Your task to perform on an android device: Clear the cart on costco.com. Search for asus zenbook on costco.com, select the first entry, add it to the cart, then select checkout. Image 0: 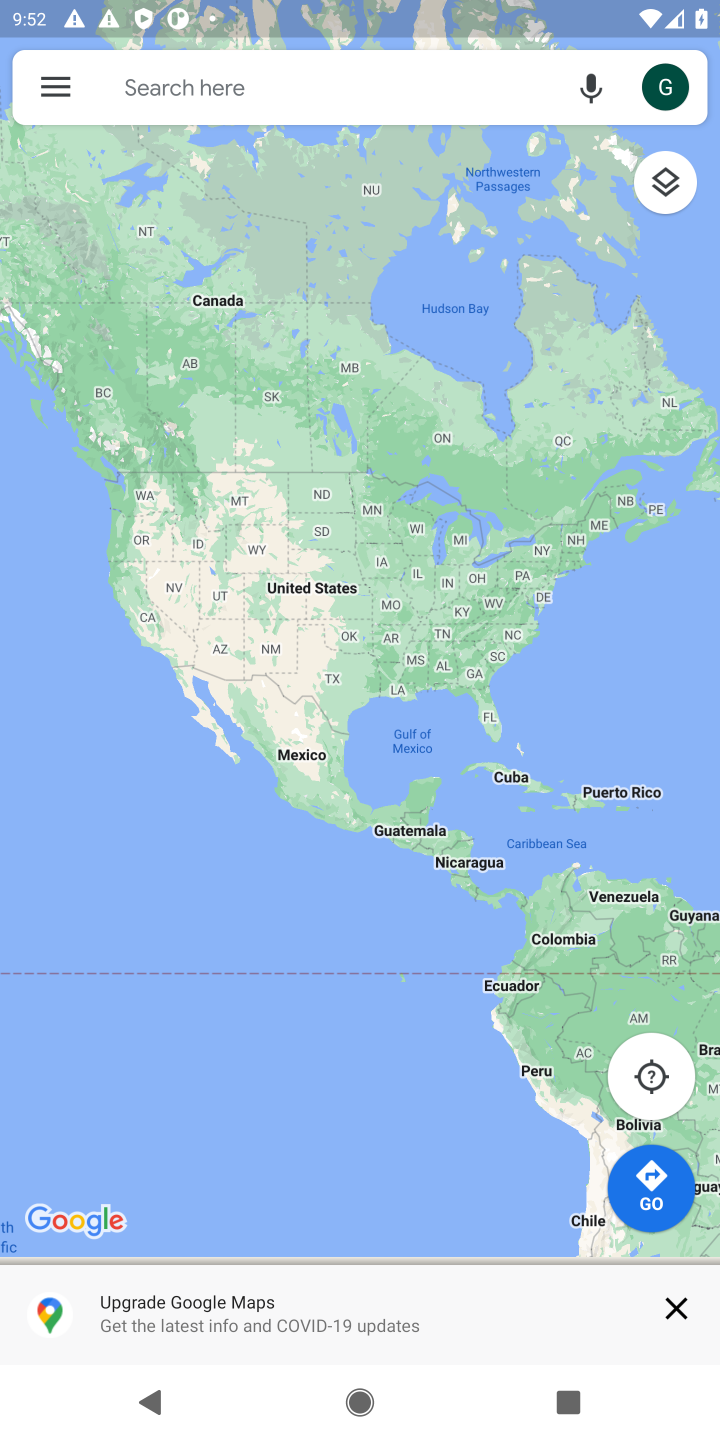
Step 0: press home button
Your task to perform on an android device: Clear the cart on costco.com. Search for asus zenbook on costco.com, select the first entry, add it to the cart, then select checkout. Image 1: 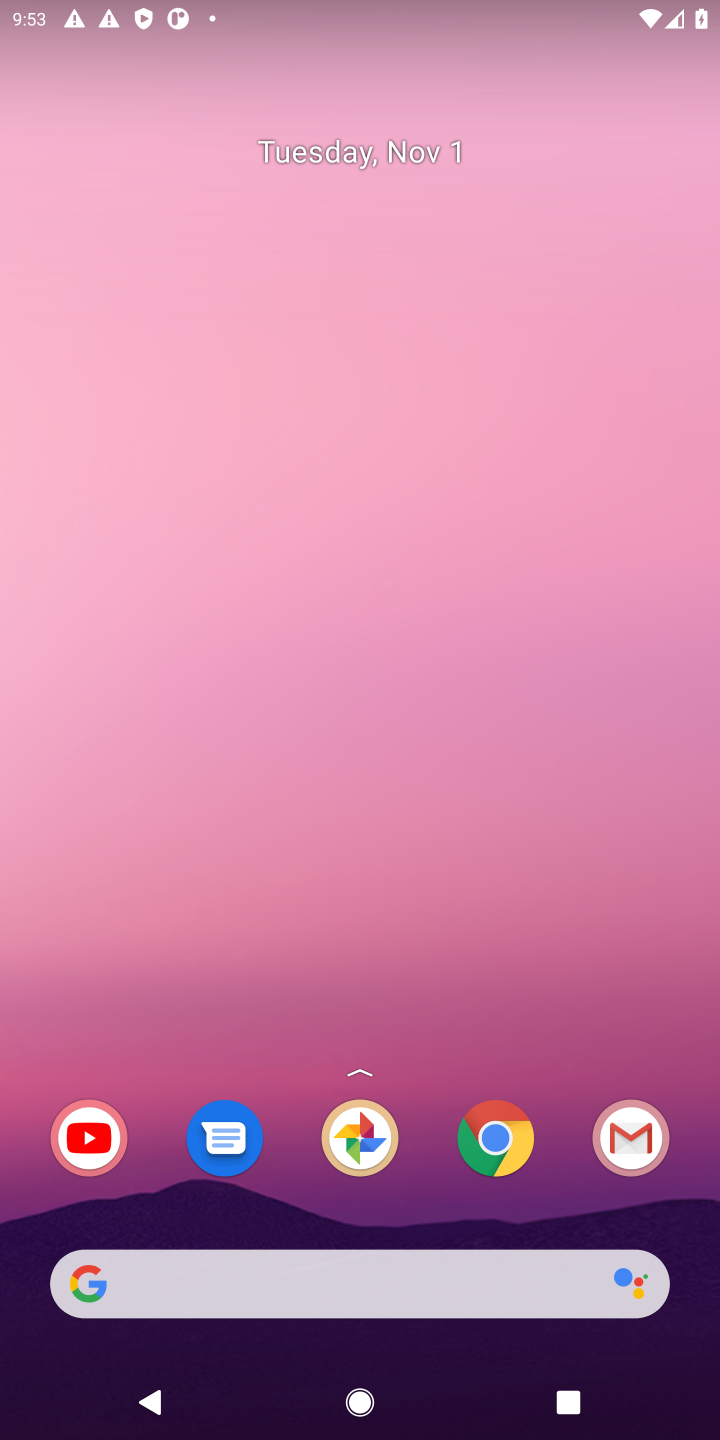
Step 1: click (493, 1145)
Your task to perform on an android device: Clear the cart on costco.com. Search for asus zenbook on costco.com, select the first entry, add it to the cart, then select checkout. Image 2: 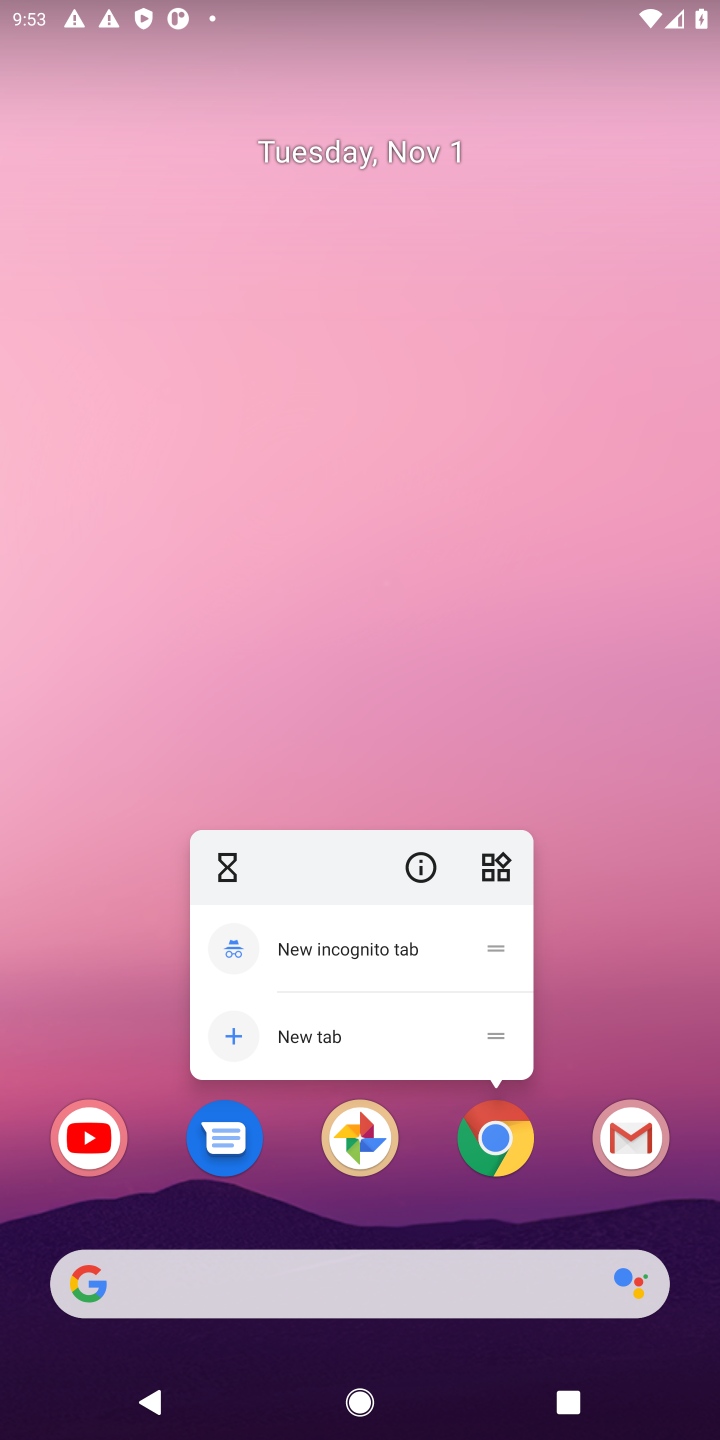
Step 2: click (493, 1145)
Your task to perform on an android device: Clear the cart on costco.com. Search for asus zenbook on costco.com, select the first entry, add it to the cart, then select checkout. Image 3: 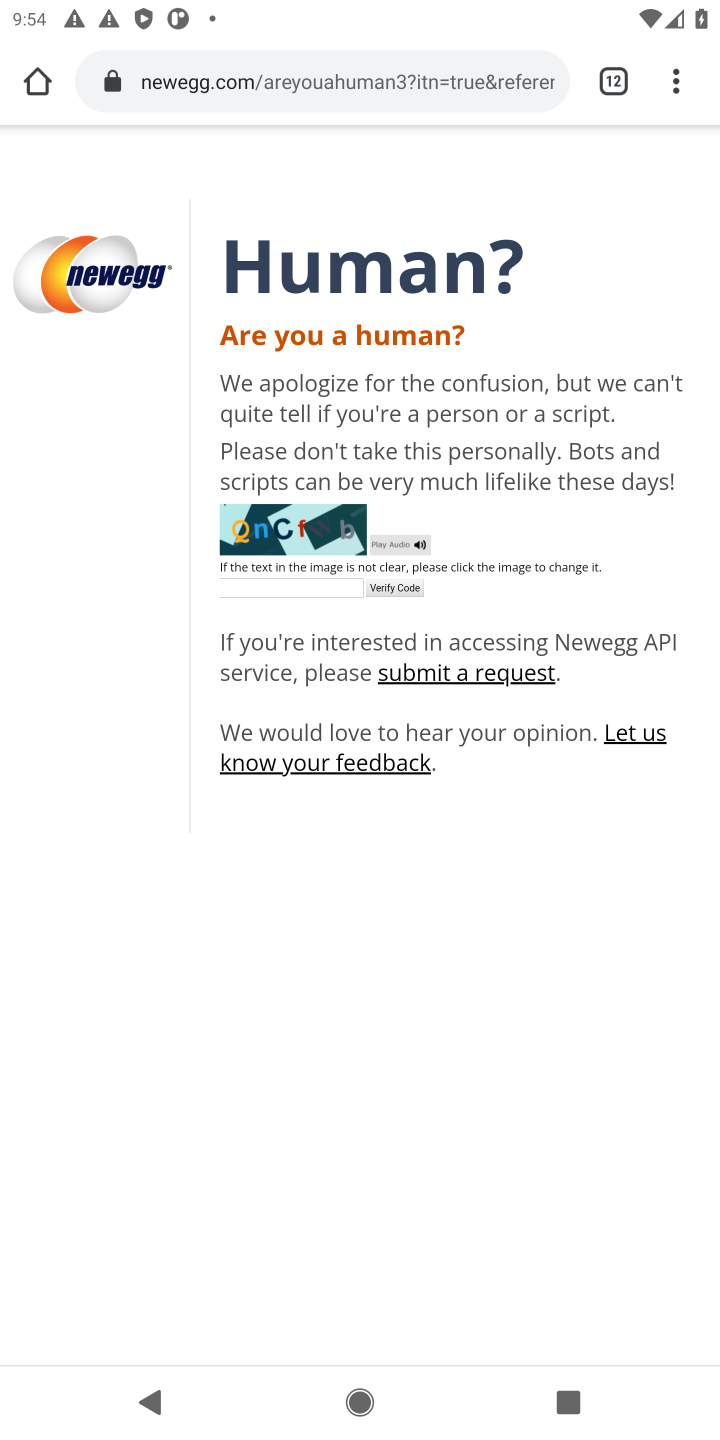
Step 3: drag from (676, 82) to (349, 158)
Your task to perform on an android device: Clear the cart on costco.com. Search for asus zenbook on costco.com, select the first entry, add it to the cart, then select checkout. Image 4: 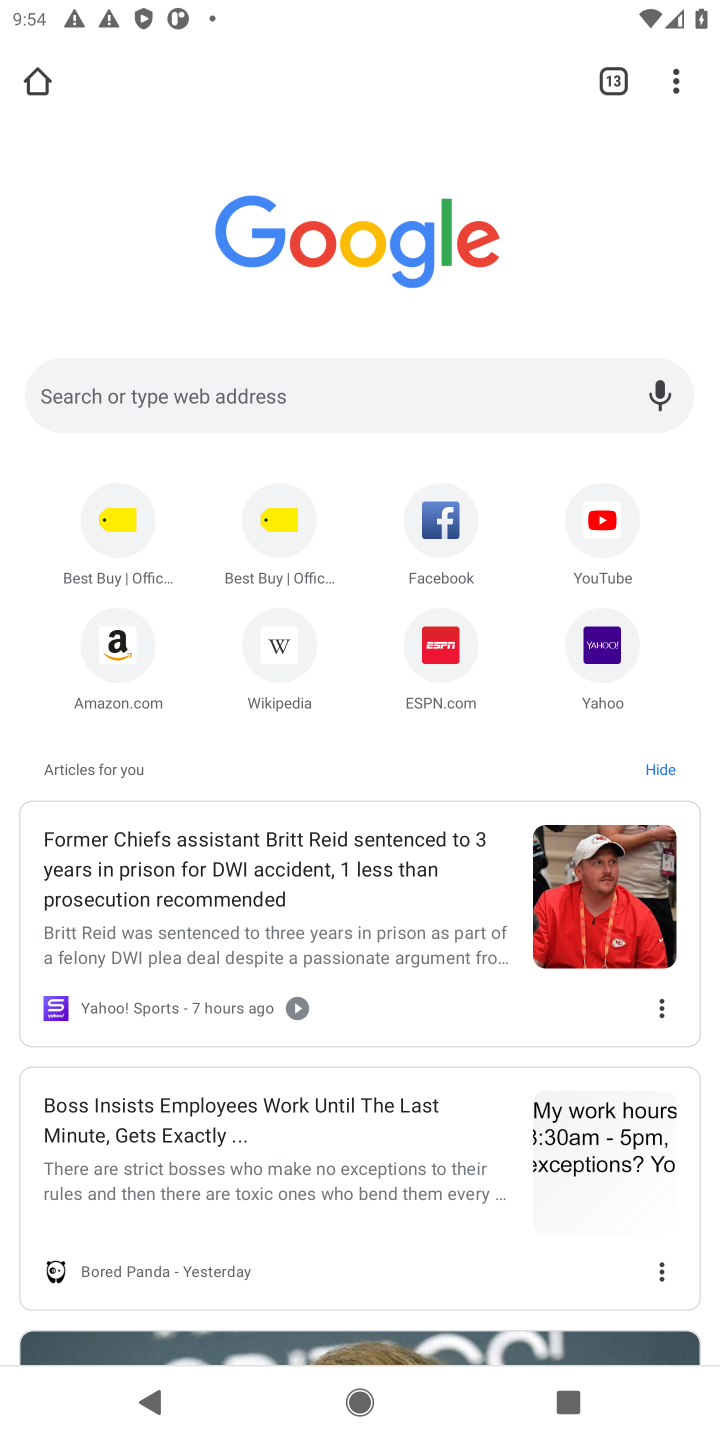
Step 4: click (281, 389)
Your task to perform on an android device: Clear the cart on costco.com. Search for asus zenbook on costco.com, select the first entry, add it to the cart, then select checkout. Image 5: 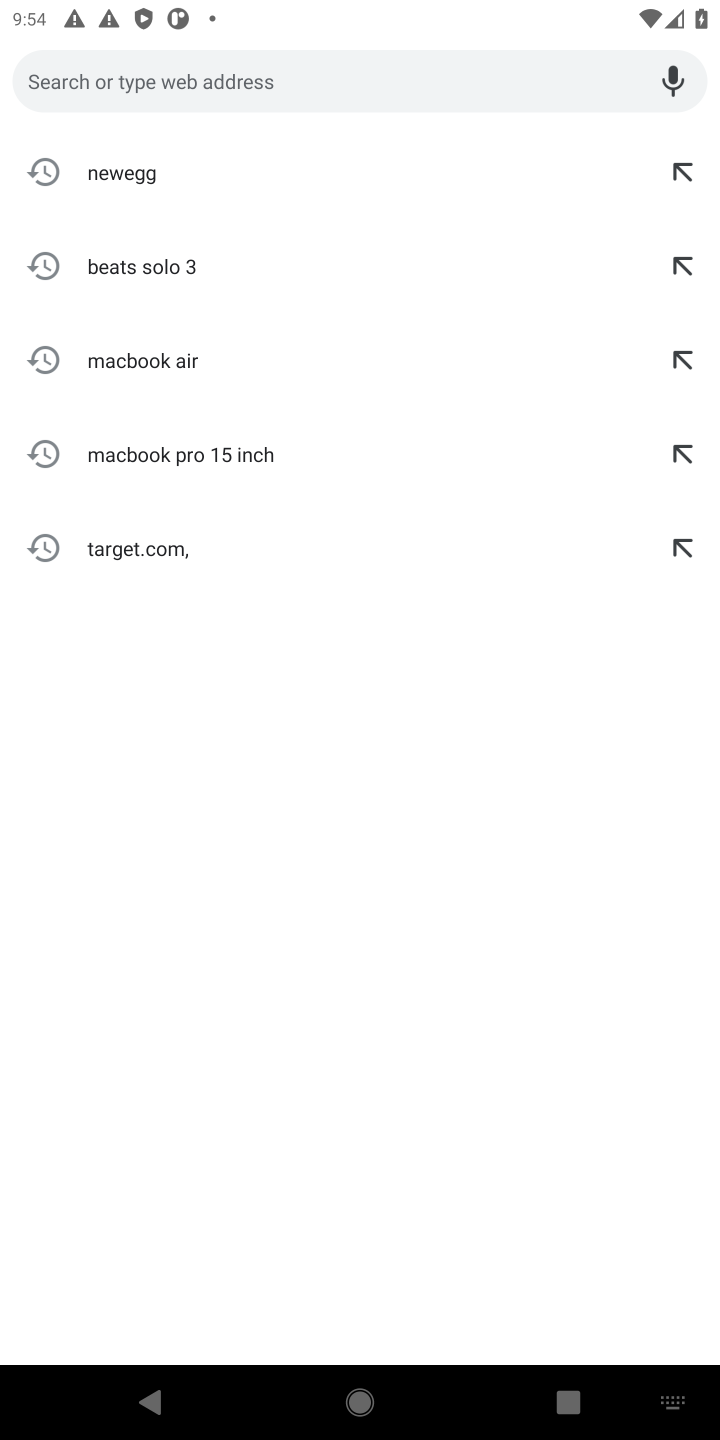
Step 5: type "costco.com"
Your task to perform on an android device: Clear the cart on costco.com. Search for asus zenbook on costco.com, select the first entry, add it to the cart, then select checkout. Image 6: 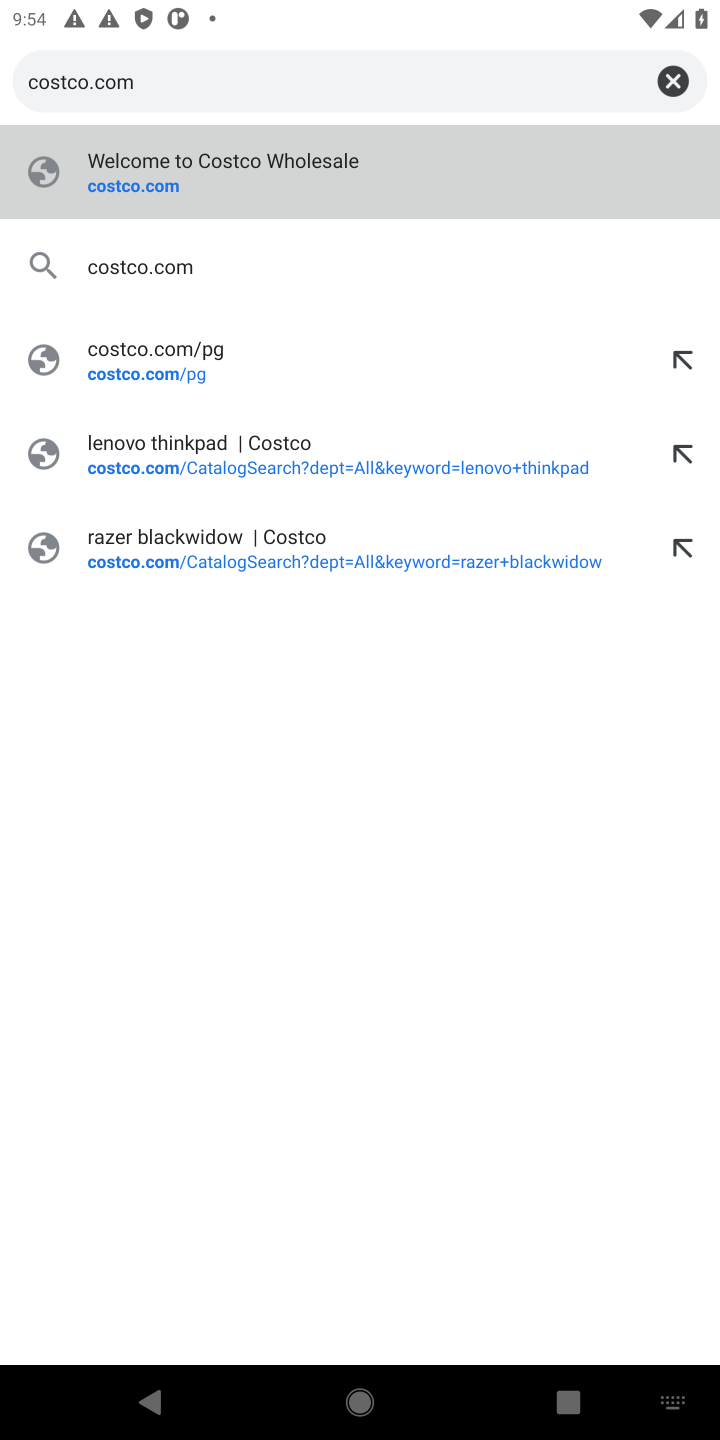
Step 6: type ""
Your task to perform on an android device: Clear the cart on costco.com. Search for asus zenbook on costco.com, select the first entry, add it to the cart, then select checkout. Image 7: 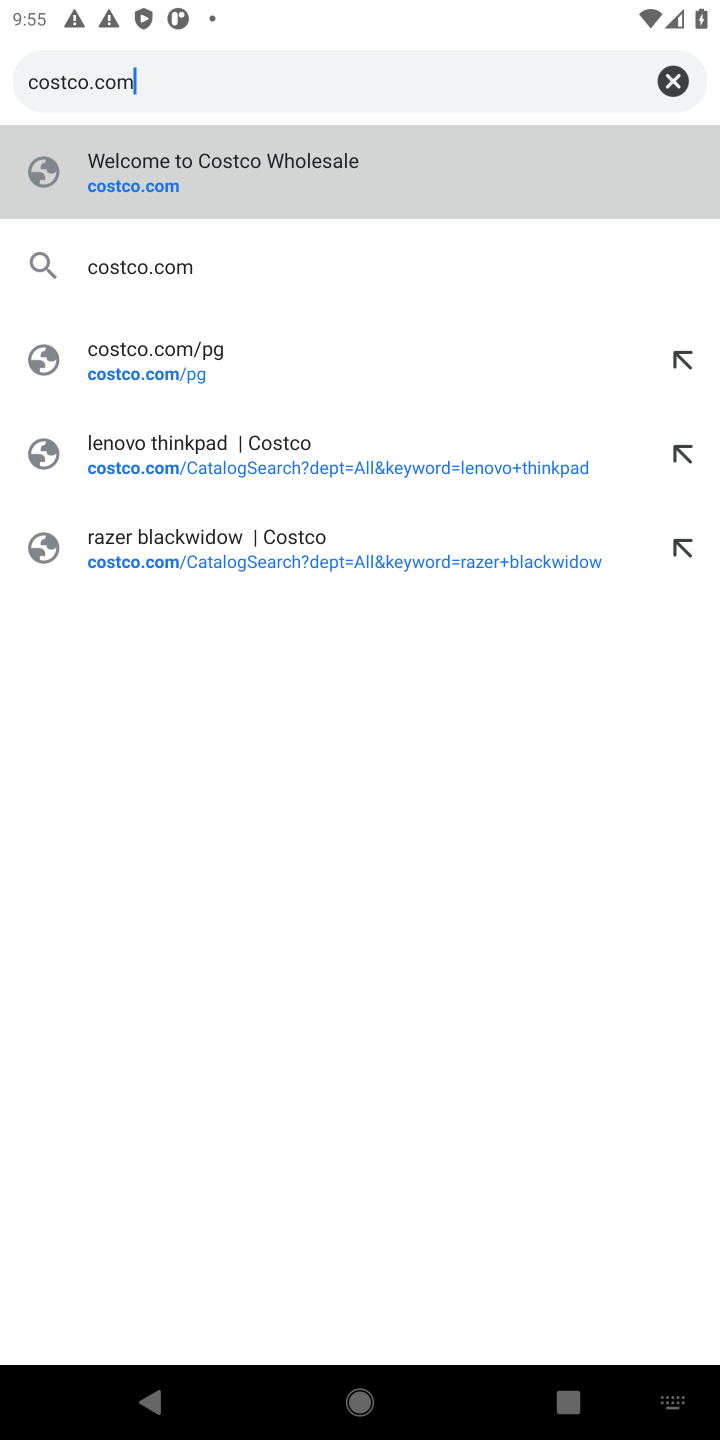
Step 7: click (146, 271)
Your task to perform on an android device: Clear the cart on costco.com. Search for asus zenbook on costco.com, select the first entry, add it to the cart, then select checkout. Image 8: 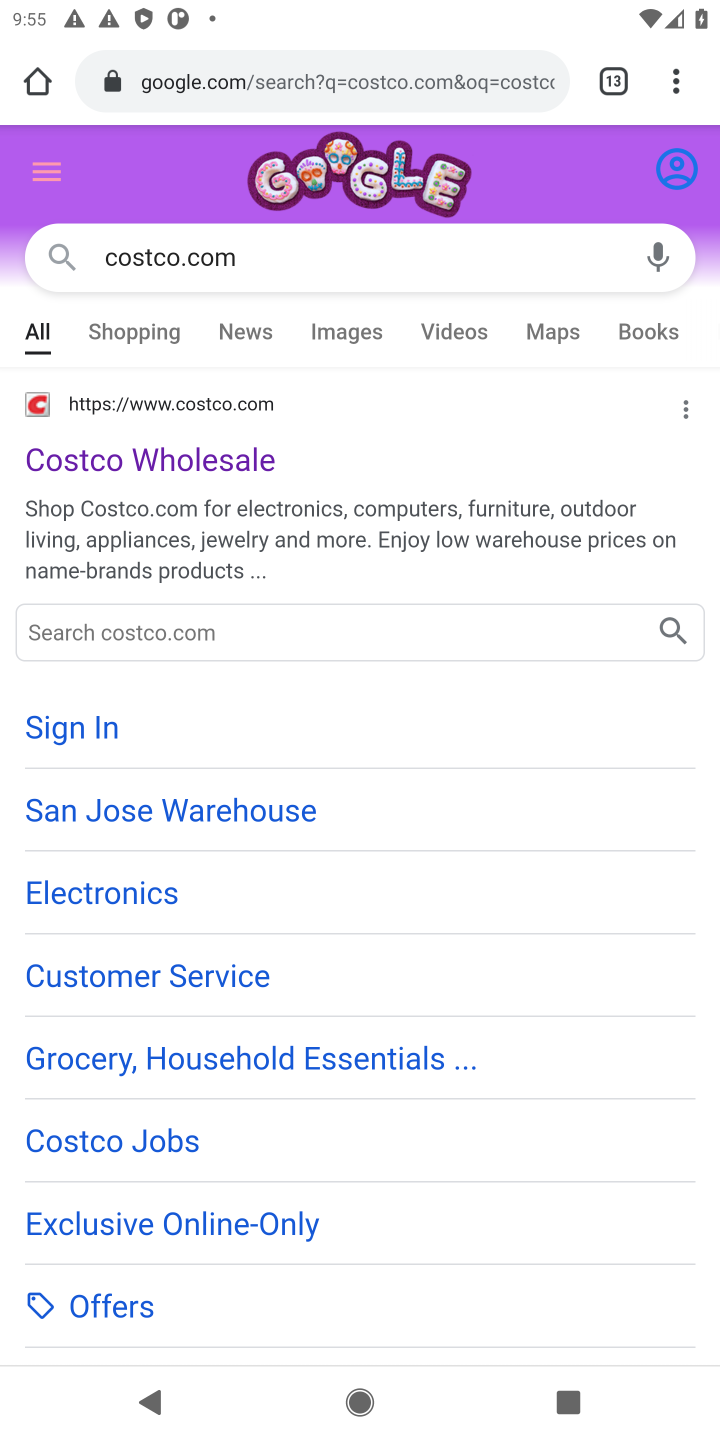
Step 8: click (172, 463)
Your task to perform on an android device: Clear the cart on costco.com. Search for asus zenbook on costco.com, select the first entry, add it to the cart, then select checkout. Image 9: 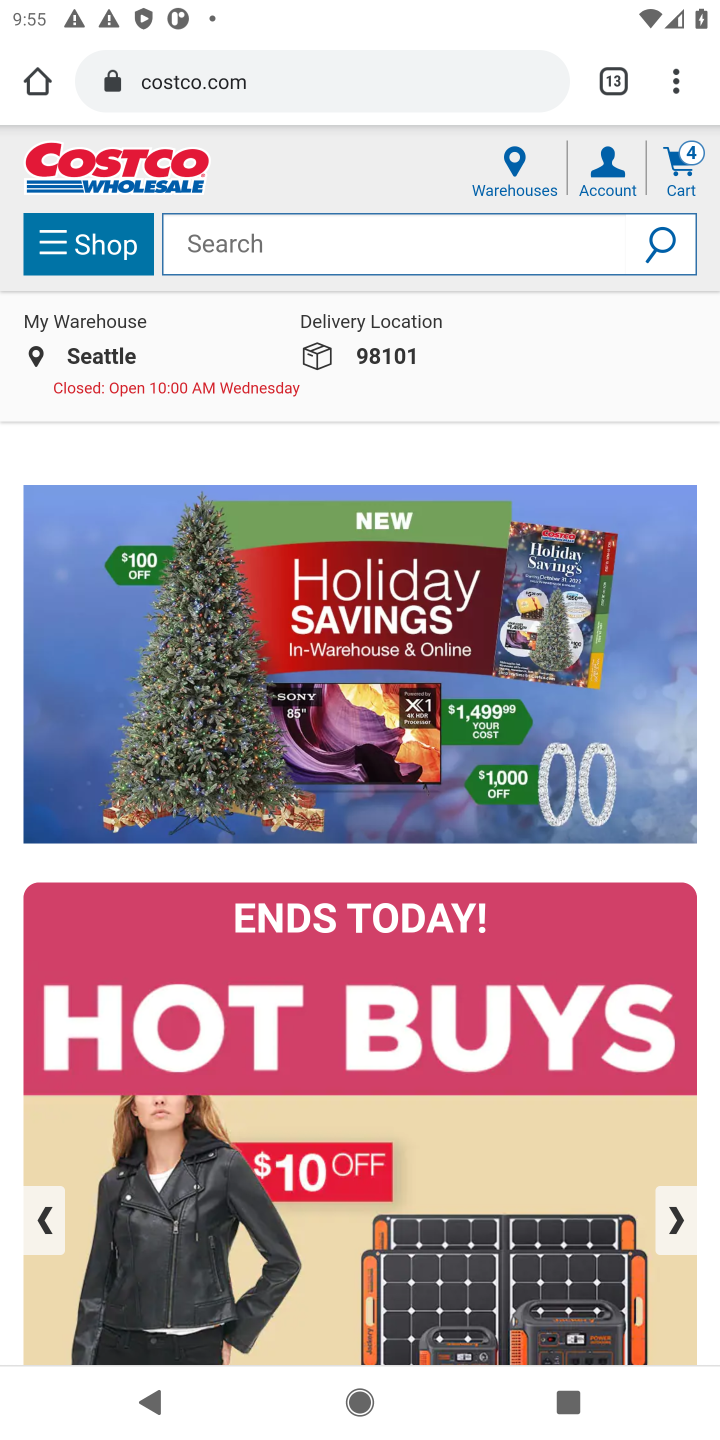
Step 9: click (253, 239)
Your task to perform on an android device: Clear the cart on costco.com. Search for asus zenbook on costco.com, select the first entry, add it to the cart, then select checkout. Image 10: 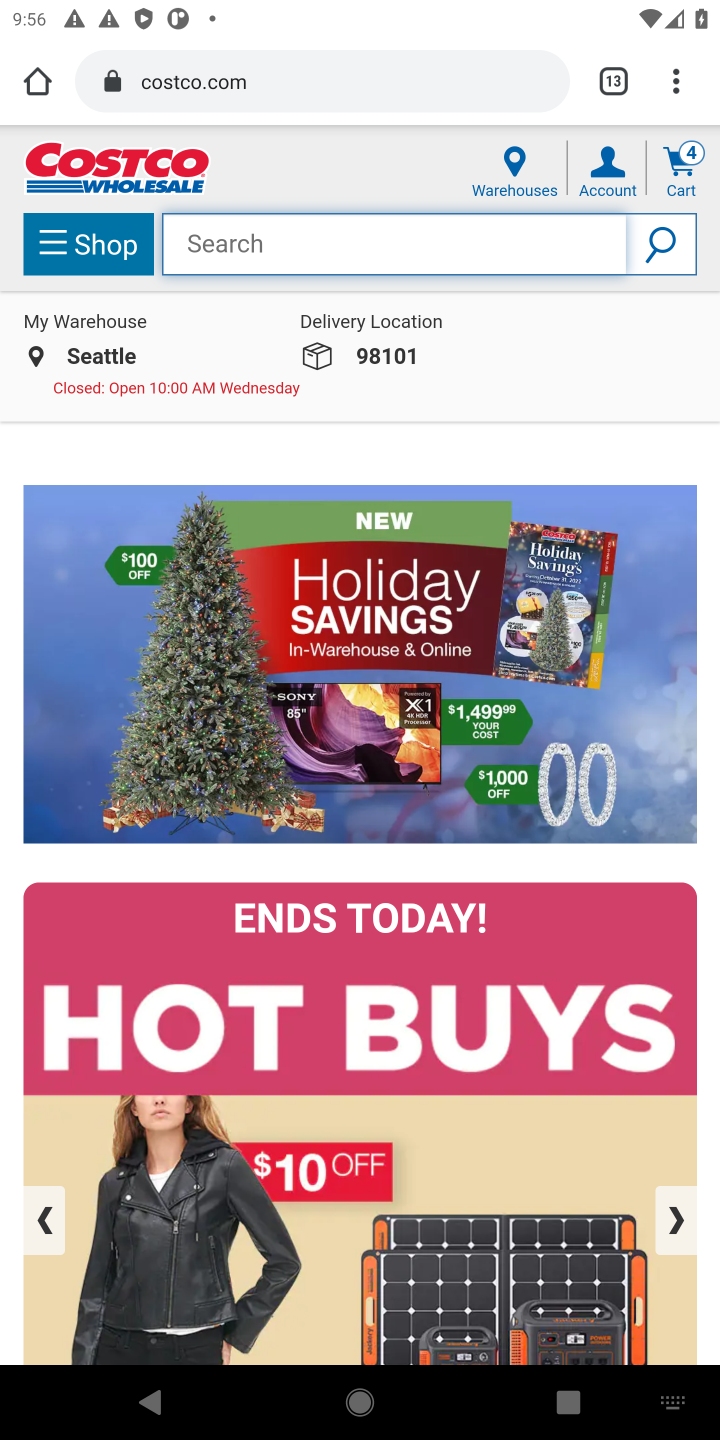
Step 10: type "asus zenbook"
Your task to perform on an android device: Clear the cart on costco.com. Search for asus zenbook on costco.com, select the first entry, add it to the cart, then select checkout. Image 11: 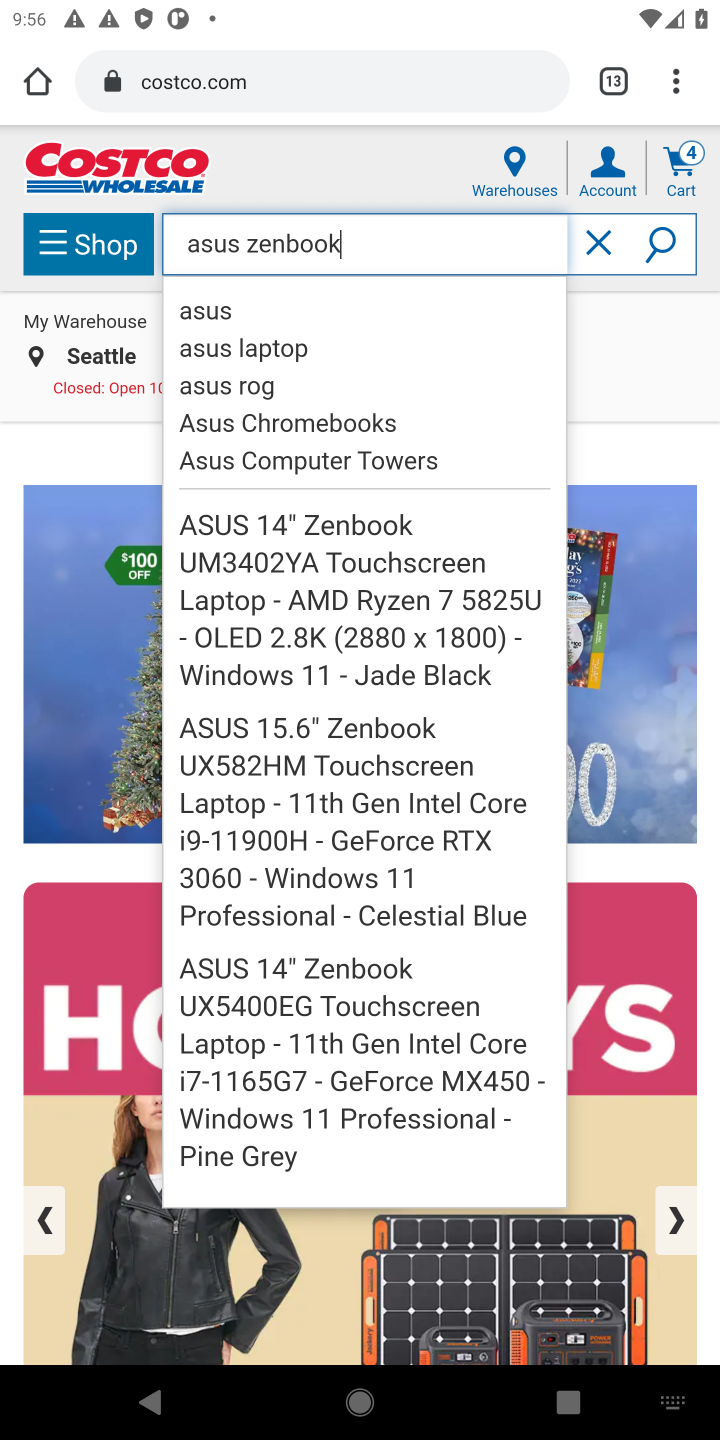
Step 11: click (348, 528)
Your task to perform on an android device: Clear the cart on costco.com. Search for asus zenbook on costco.com, select the first entry, add it to the cart, then select checkout. Image 12: 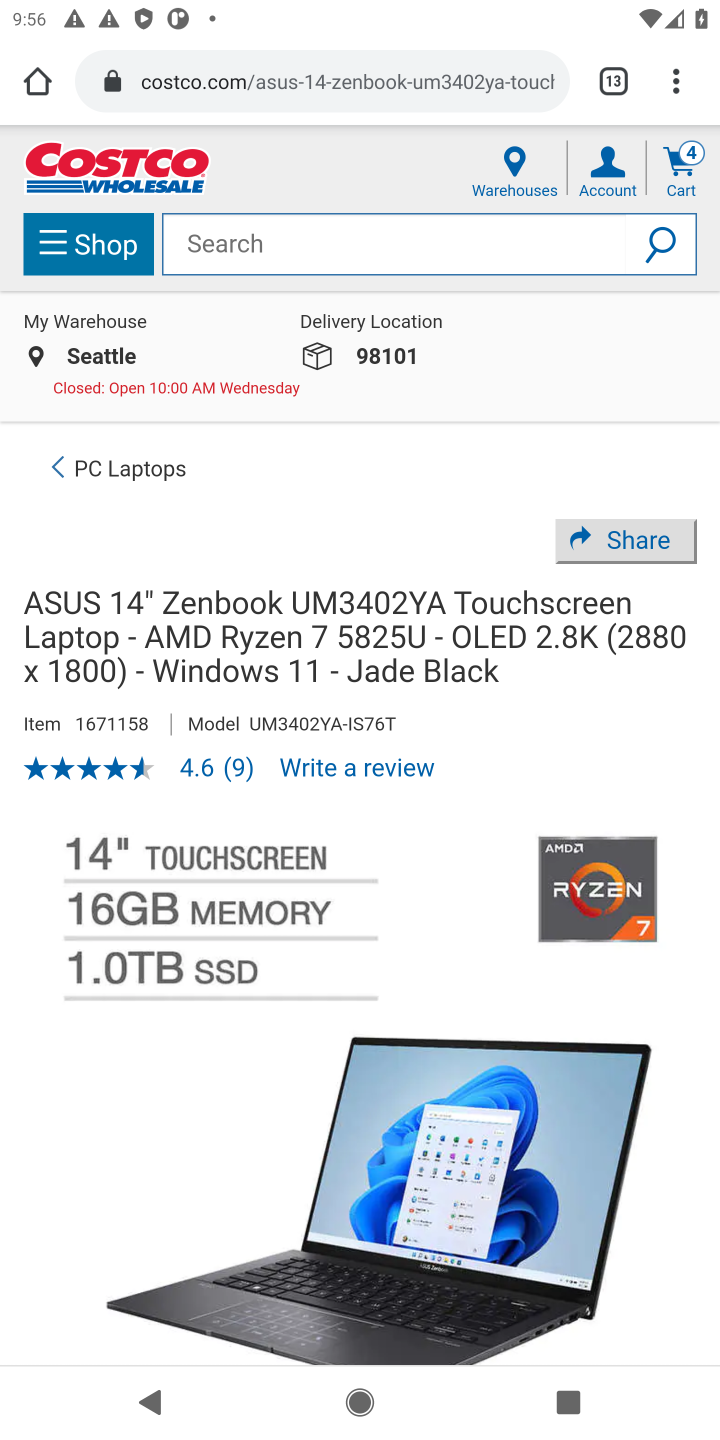
Step 12: drag from (349, 1221) to (254, 547)
Your task to perform on an android device: Clear the cart on costco.com. Search for asus zenbook on costco.com, select the first entry, add it to the cart, then select checkout. Image 13: 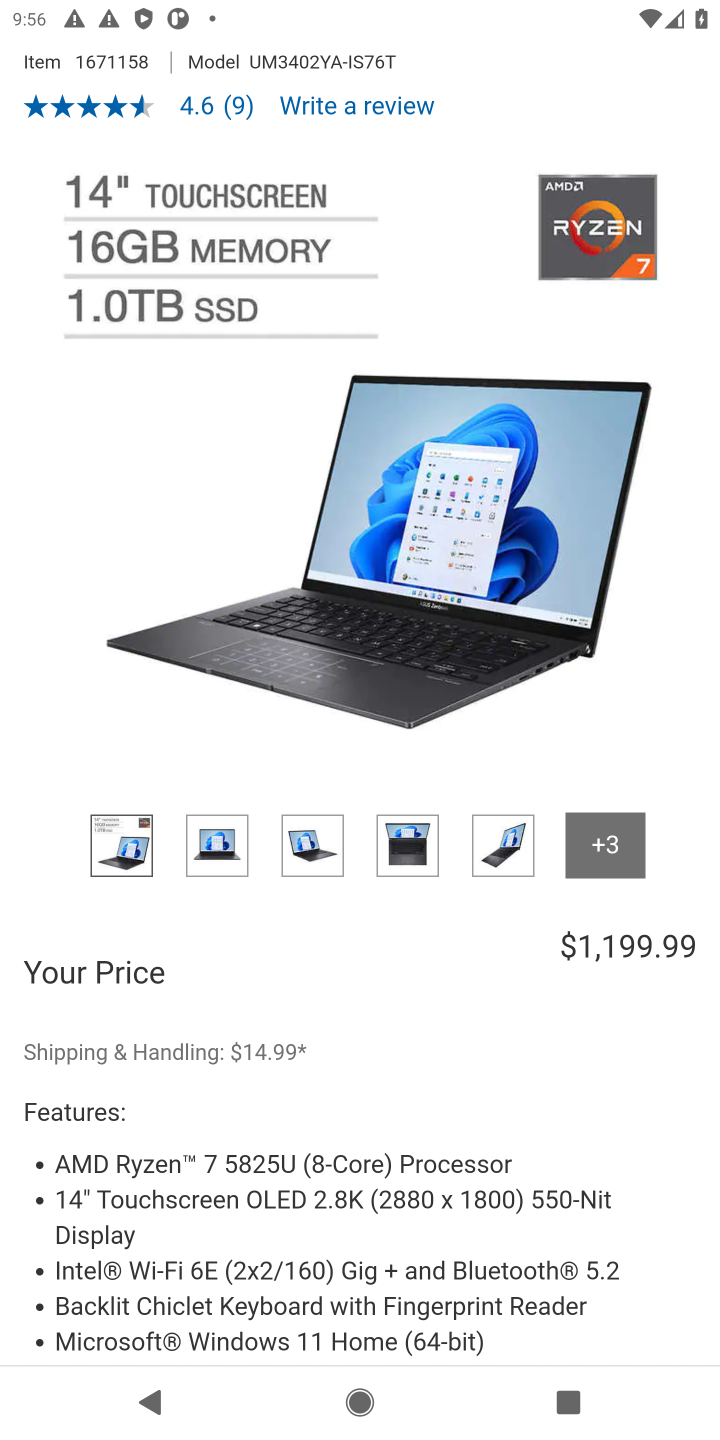
Step 13: drag from (330, 1249) to (102, 595)
Your task to perform on an android device: Clear the cart on costco.com. Search for asus zenbook on costco.com, select the first entry, add it to the cart, then select checkout. Image 14: 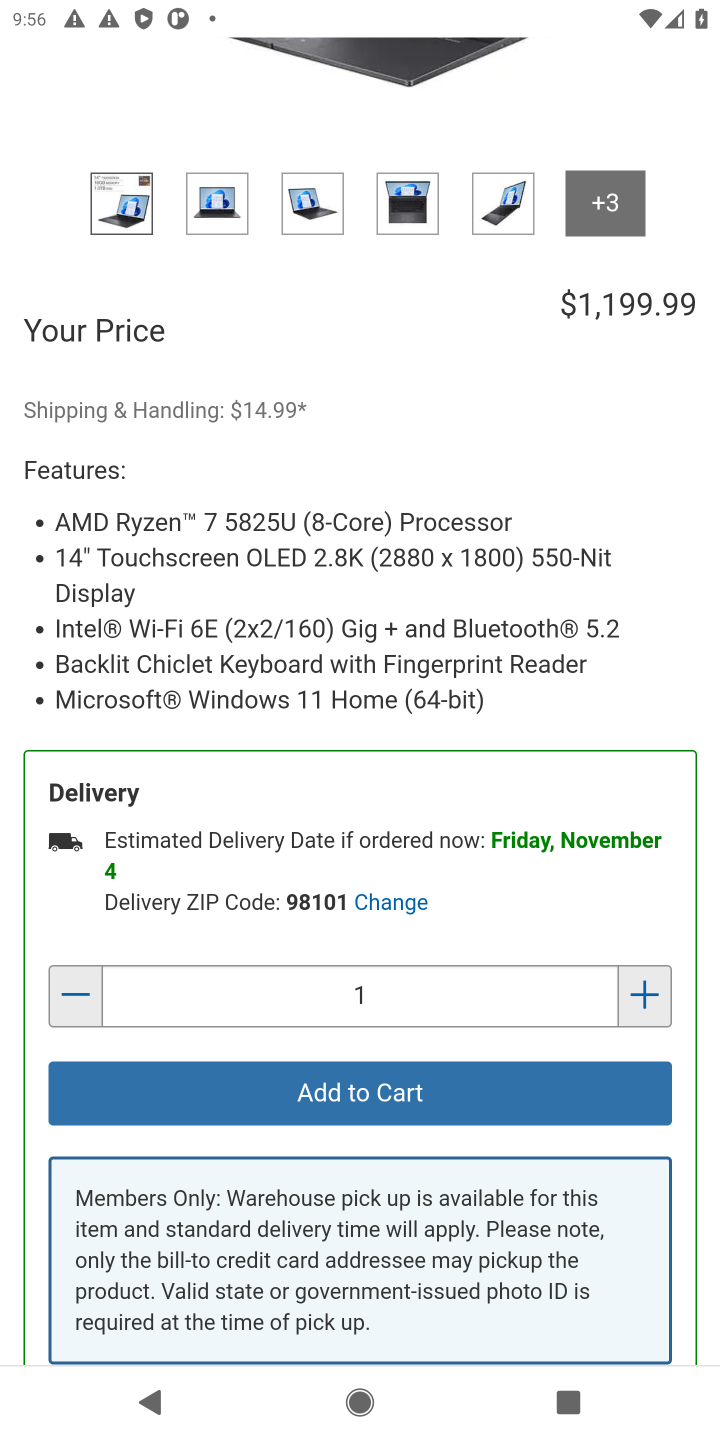
Step 14: click (373, 1098)
Your task to perform on an android device: Clear the cart on costco.com. Search for asus zenbook on costco.com, select the first entry, add it to the cart, then select checkout. Image 15: 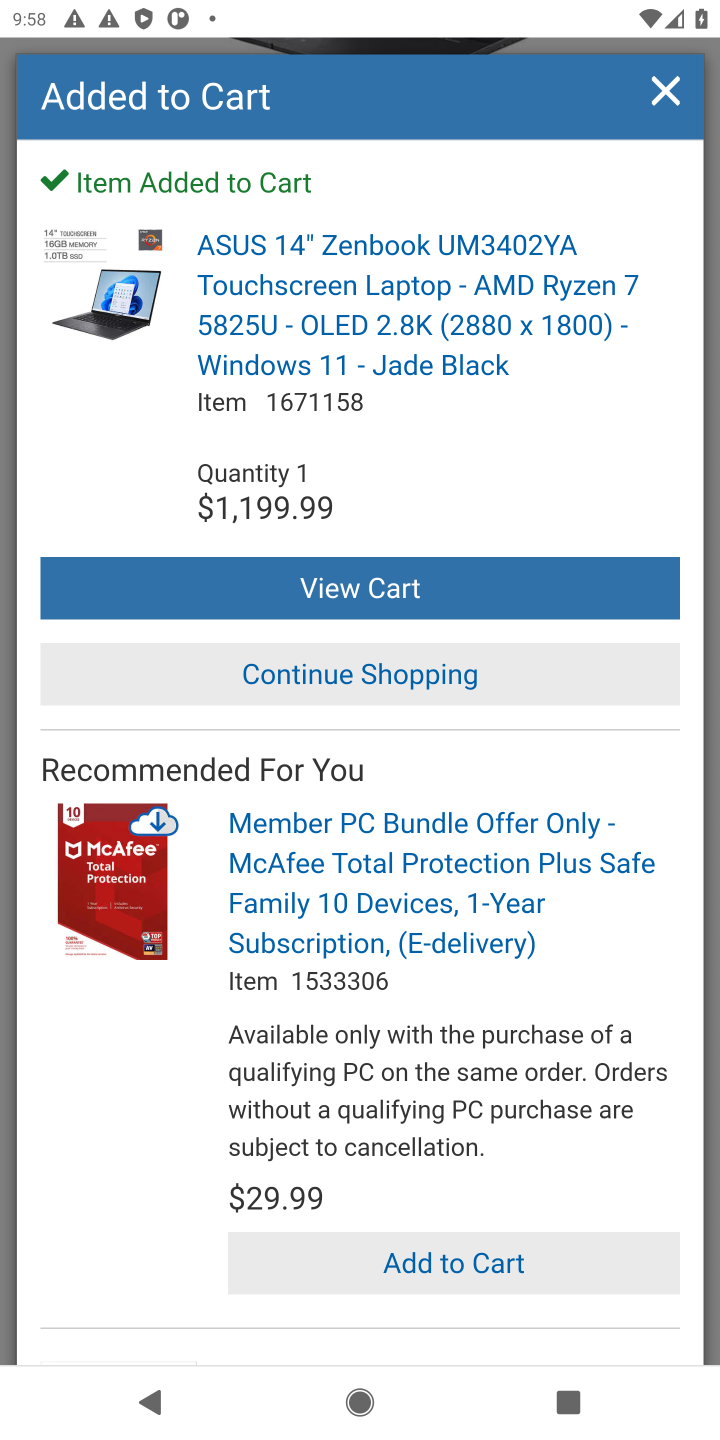
Step 15: task complete